Your task to perform on an android device: Go to ESPN.com Image 0: 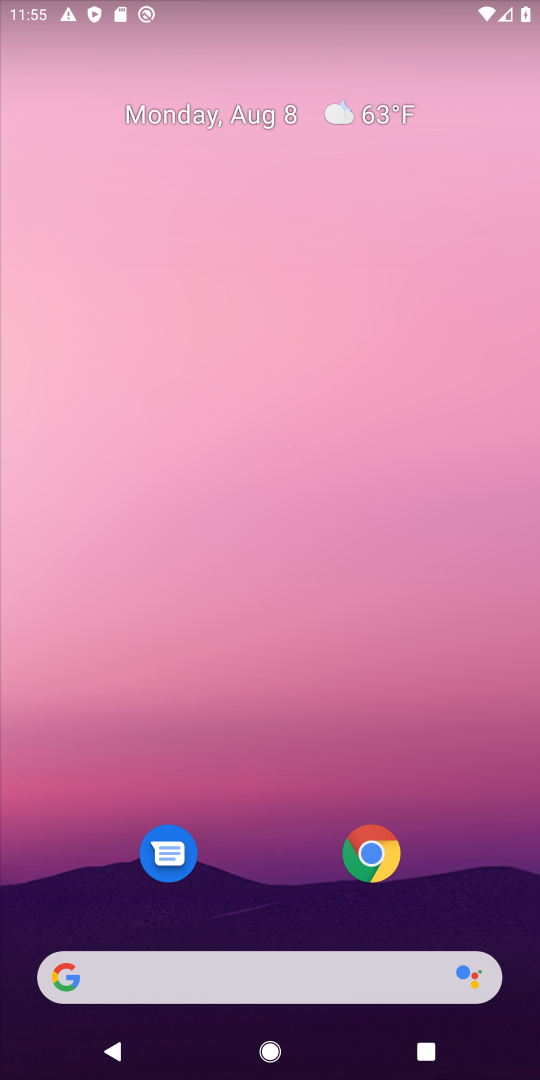
Step 0: click (369, 852)
Your task to perform on an android device: Go to ESPN.com Image 1: 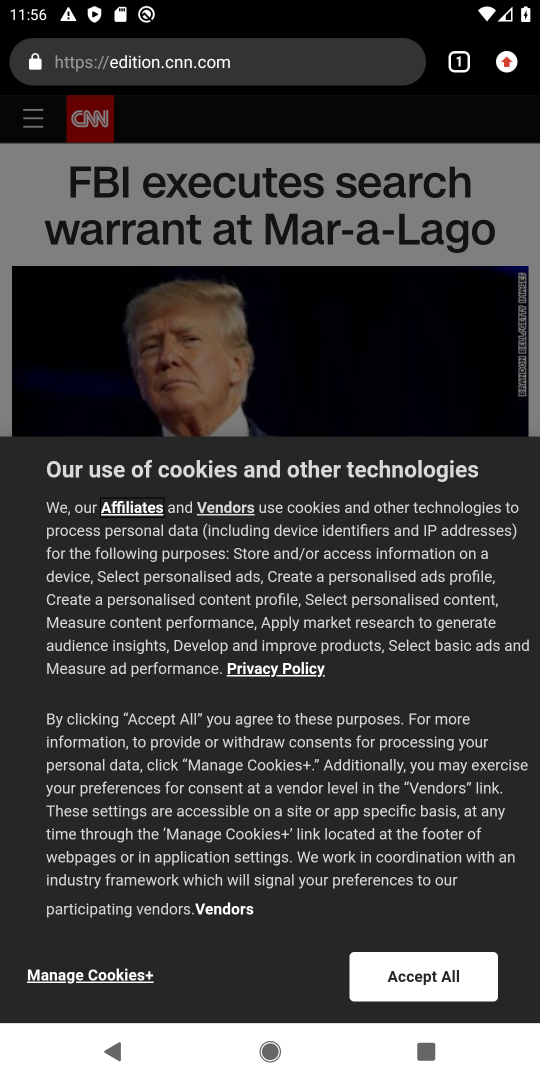
Step 1: click (248, 57)
Your task to perform on an android device: Go to ESPN.com Image 2: 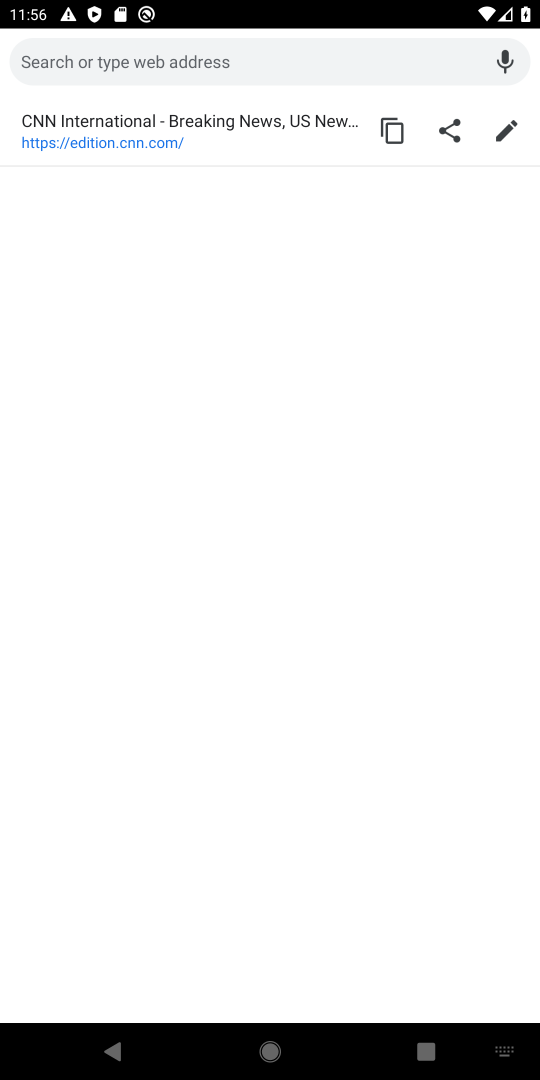
Step 2: type "espn.com"
Your task to perform on an android device: Go to ESPN.com Image 3: 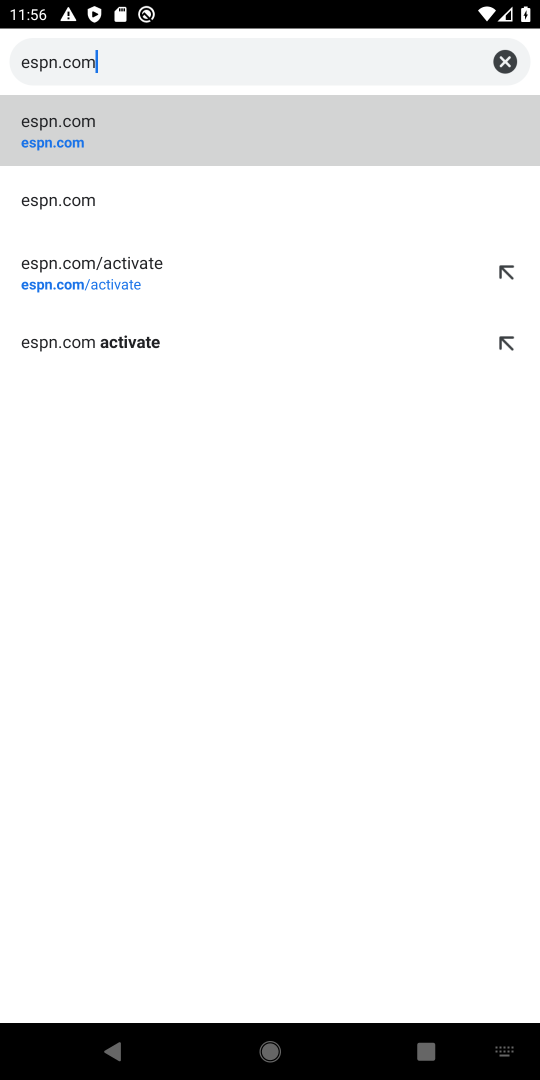
Step 3: click (253, 121)
Your task to perform on an android device: Go to ESPN.com Image 4: 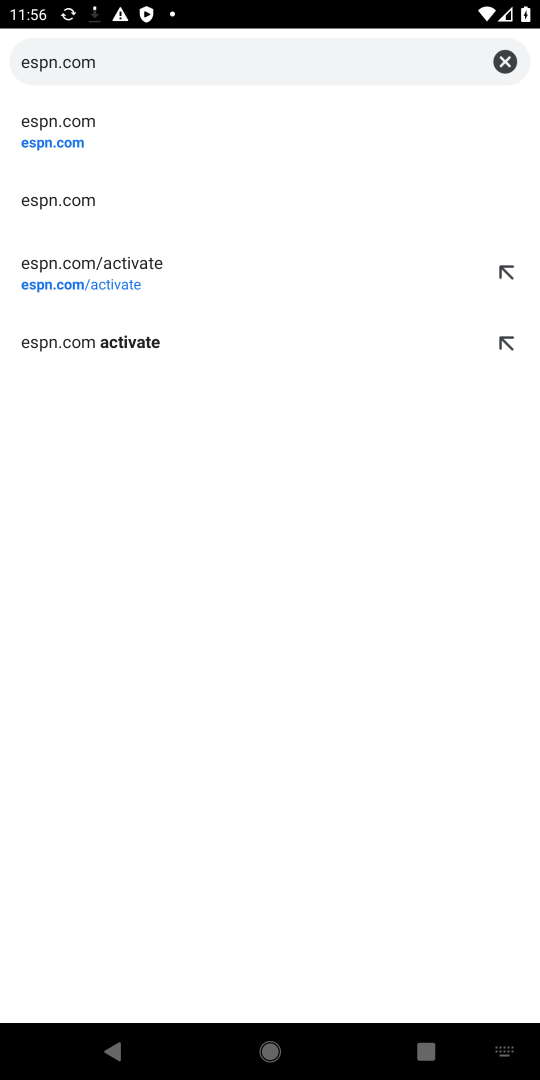
Step 4: click (37, 134)
Your task to perform on an android device: Go to ESPN.com Image 5: 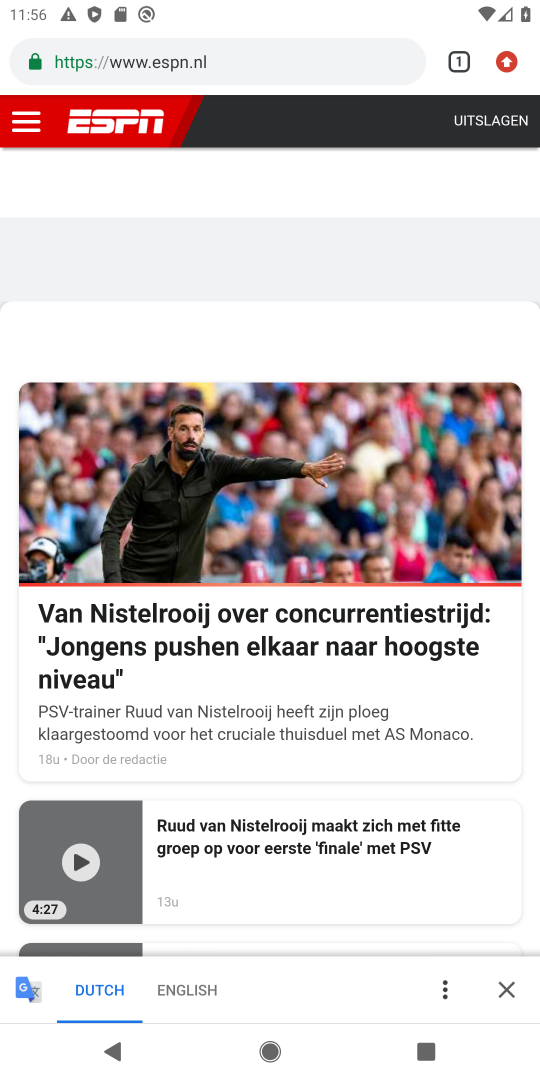
Step 5: task complete